Your task to perform on an android device: change the clock display to analog Image 0: 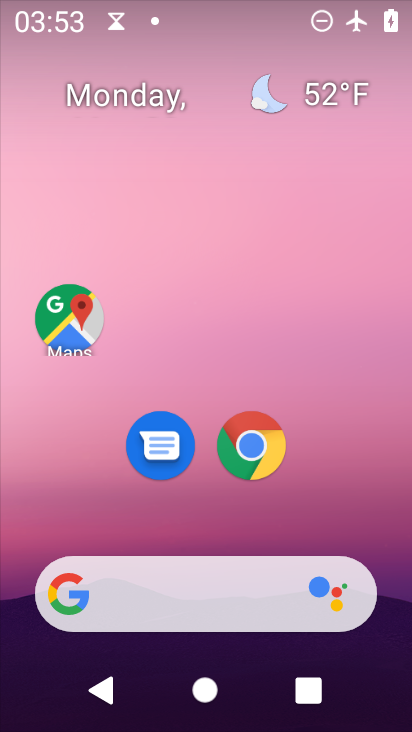
Step 0: drag from (195, 537) to (219, 205)
Your task to perform on an android device: change the clock display to analog Image 1: 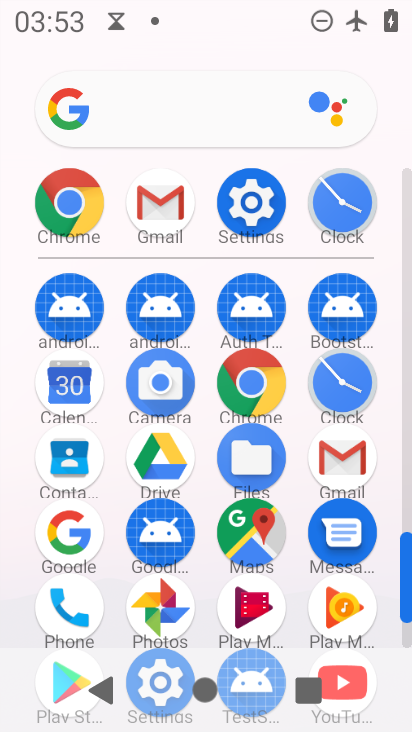
Step 1: click (345, 381)
Your task to perform on an android device: change the clock display to analog Image 2: 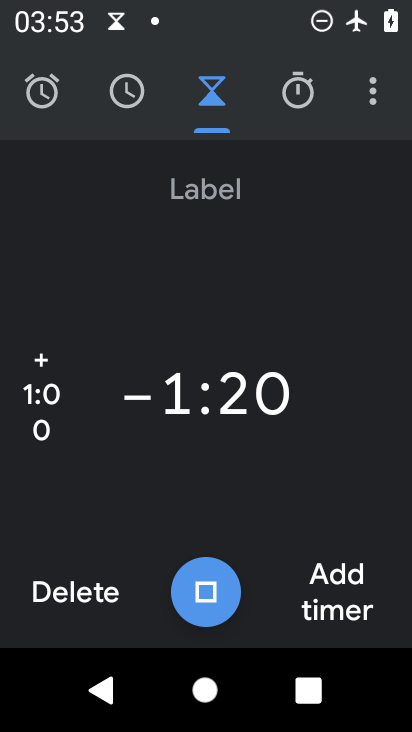
Step 2: click (367, 74)
Your task to perform on an android device: change the clock display to analog Image 3: 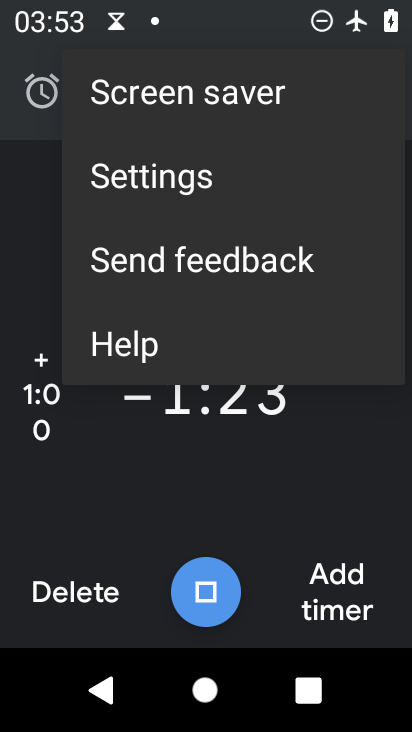
Step 3: click (168, 175)
Your task to perform on an android device: change the clock display to analog Image 4: 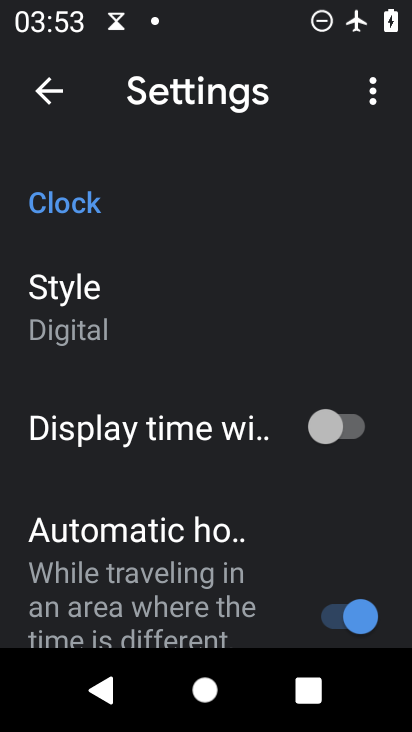
Step 4: click (80, 293)
Your task to perform on an android device: change the clock display to analog Image 5: 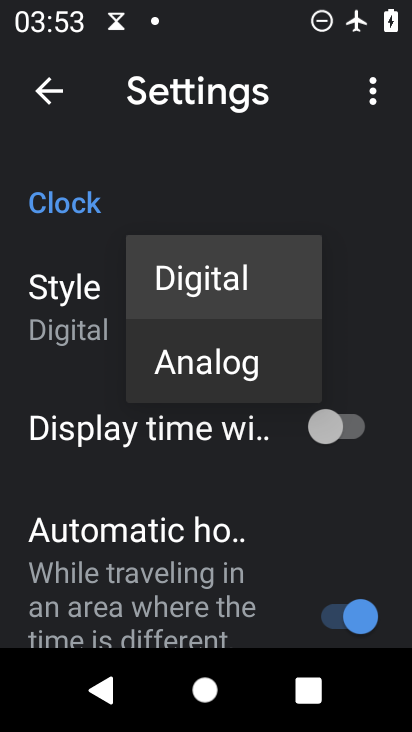
Step 5: click (198, 368)
Your task to perform on an android device: change the clock display to analog Image 6: 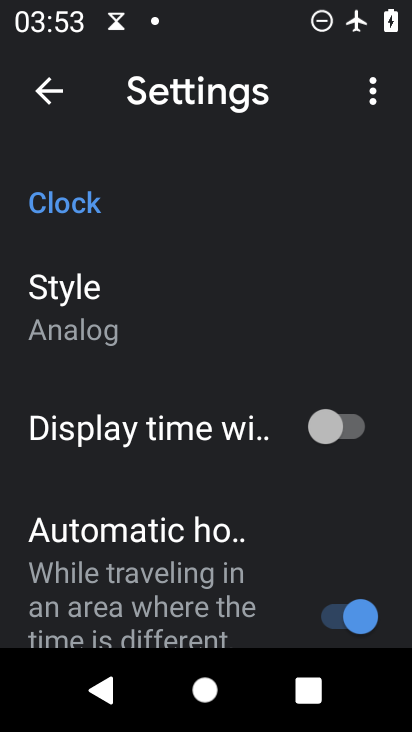
Step 6: task complete